Your task to perform on an android device: turn on priority inbox in the gmail app Image 0: 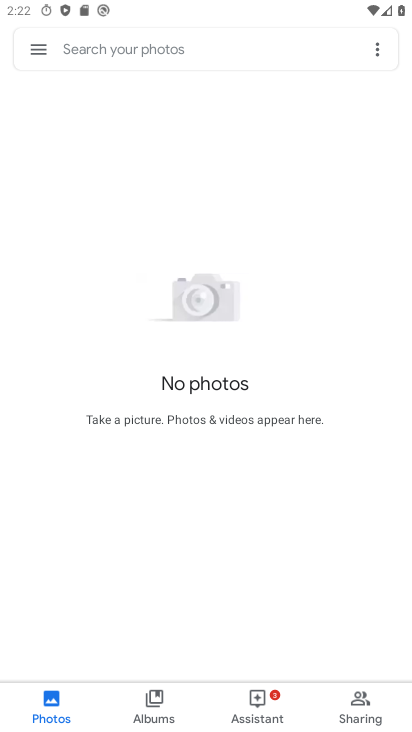
Step 0: press home button
Your task to perform on an android device: turn on priority inbox in the gmail app Image 1: 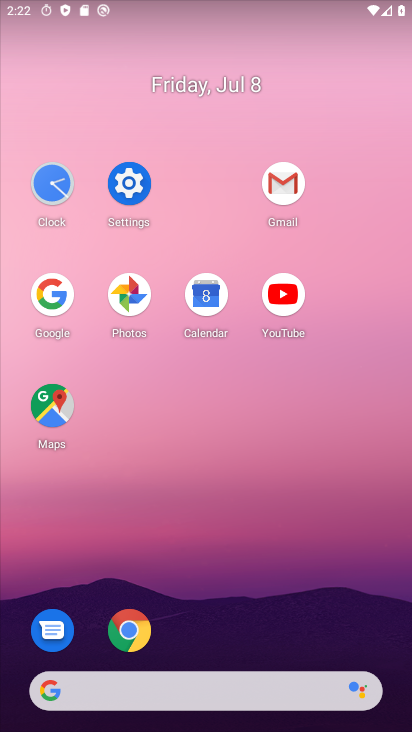
Step 1: click (302, 174)
Your task to perform on an android device: turn on priority inbox in the gmail app Image 2: 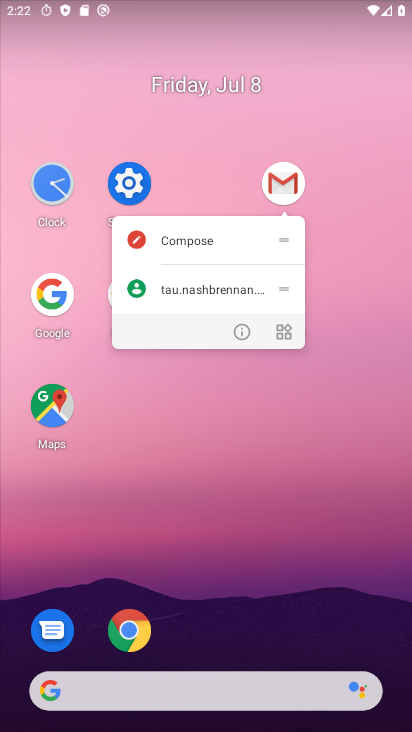
Step 2: click (299, 174)
Your task to perform on an android device: turn on priority inbox in the gmail app Image 3: 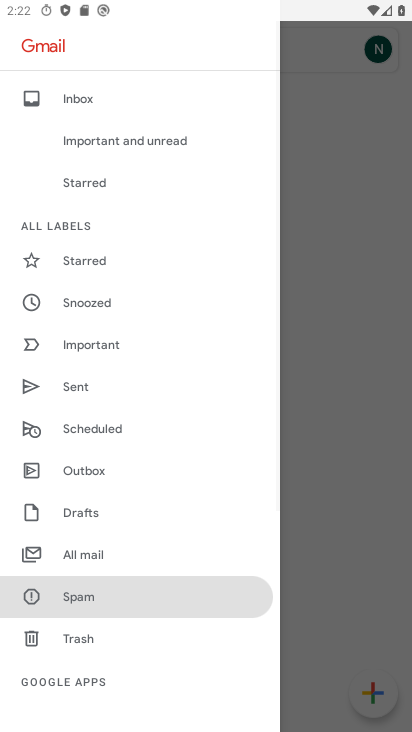
Step 3: drag from (162, 501) to (216, 175)
Your task to perform on an android device: turn on priority inbox in the gmail app Image 4: 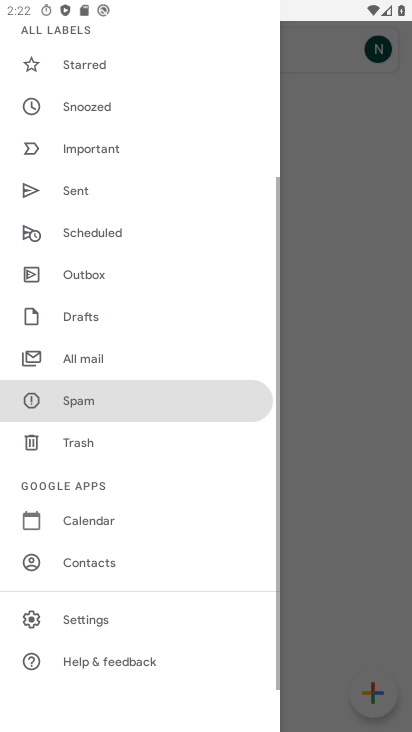
Step 4: click (93, 618)
Your task to perform on an android device: turn on priority inbox in the gmail app Image 5: 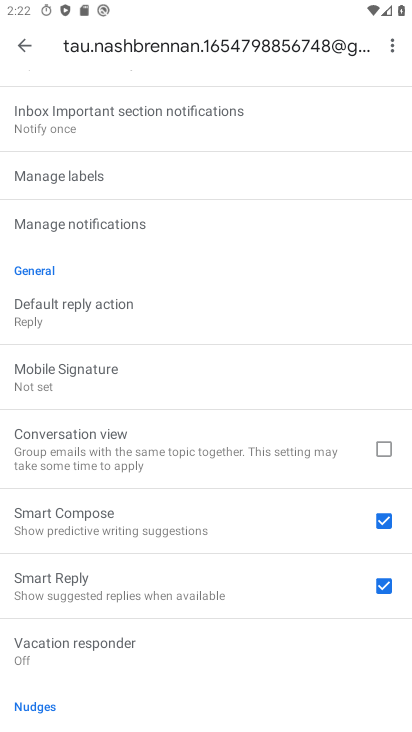
Step 5: drag from (227, 507) to (257, 229)
Your task to perform on an android device: turn on priority inbox in the gmail app Image 6: 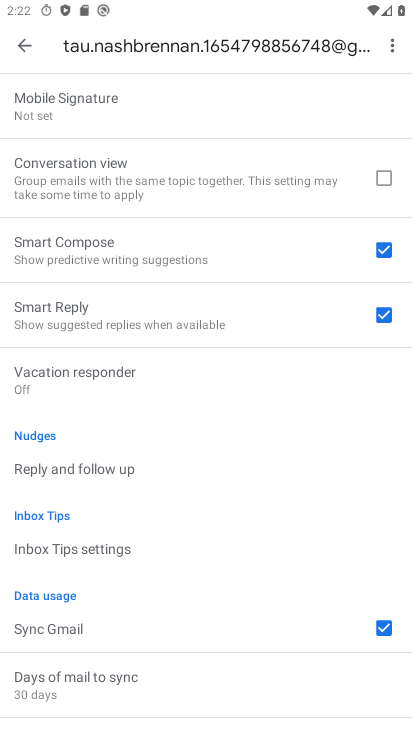
Step 6: drag from (179, 533) to (213, 139)
Your task to perform on an android device: turn on priority inbox in the gmail app Image 7: 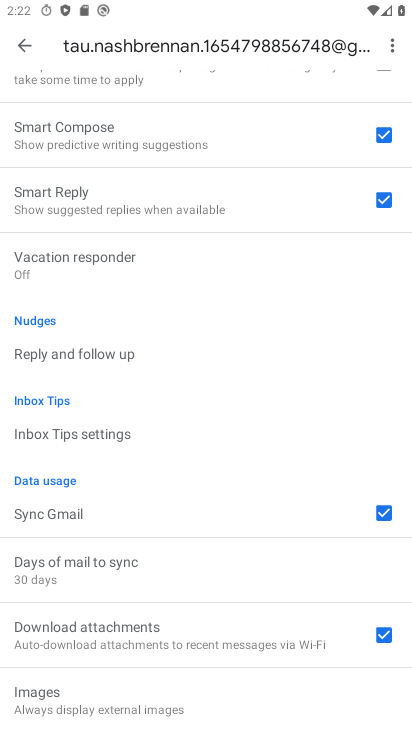
Step 7: drag from (215, 138) to (233, 511)
Your task to perform on an android device: turn on priority inbox in the gmail app Image 8: 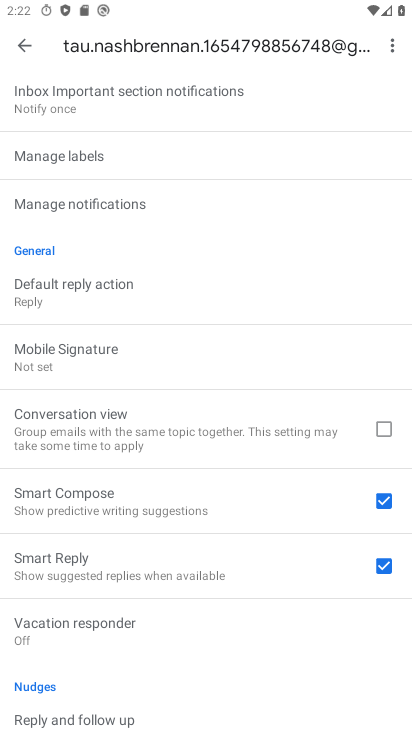
Step 8: drag from (223, 484) to (229, 320)
Your task to perform on an android device: turn on priority inbox in the gmail app Image 9: 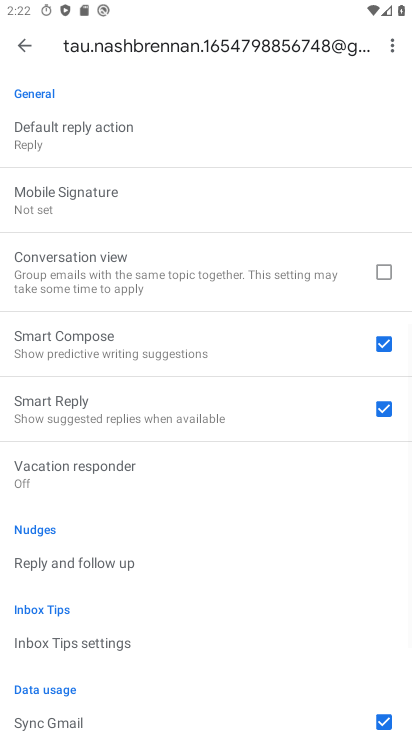
Step 9: drag from (229, 312) to (273, 681)
Your task to perform on an android device: turn on priority inbox in the gmail app Image 10: 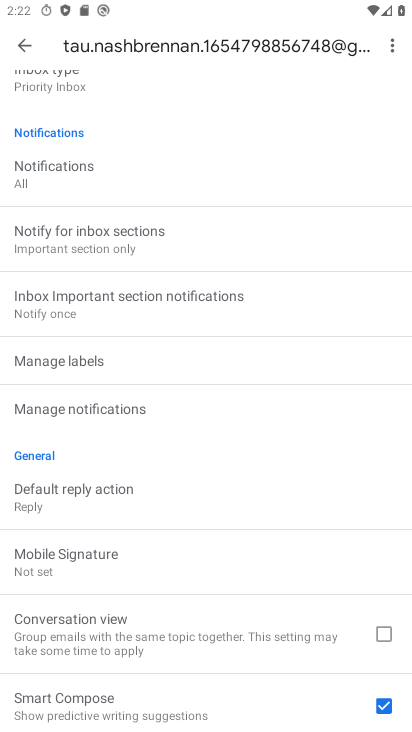
Step 10: drag from (241, 172) to (238, 453)
Your task to perform on an android device: turn on priority inbox in the gmail app Image 11: 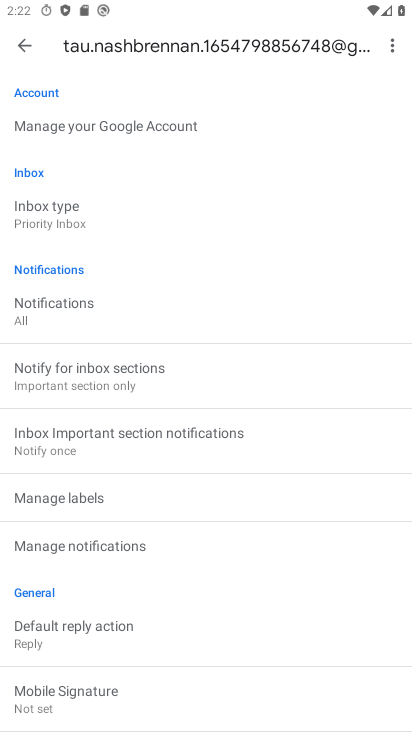
Step 11: click (119, 202)
Your task to perform on an android device: turn on priority inbox in the gmail app Image 12: 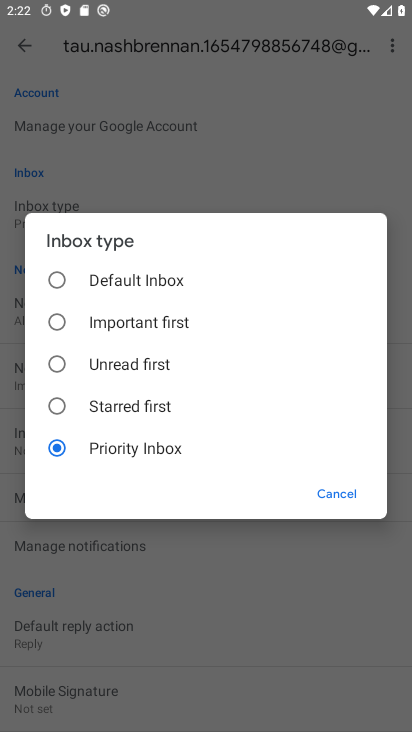
Step 12: task complete